Your task to perform on an android device: change notification settings in the gmail app Image 0: 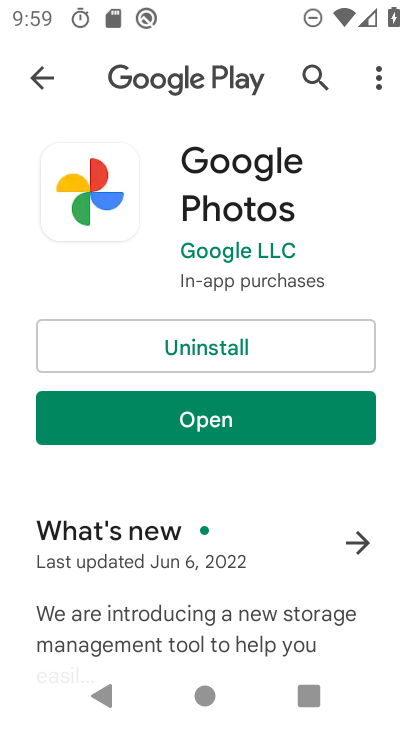
Step 0: press home button
Your task to perform on an android device: change notification settings in the gmail app Image 1: 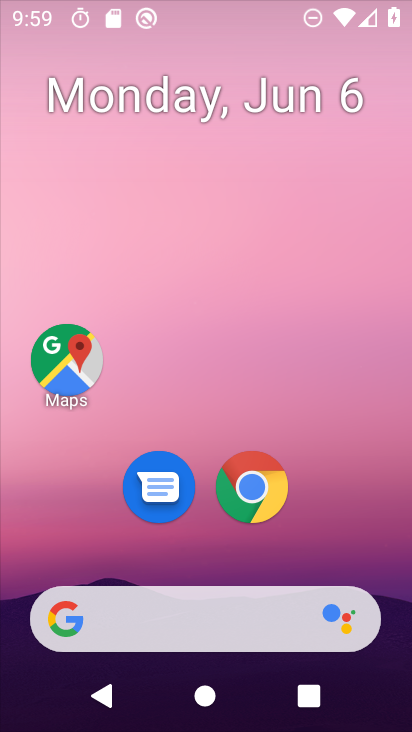
Step 1: drag from (397, 646) to (288, 59)
Your task to perform on an android device: change notification settings in the gmail app Image 2: 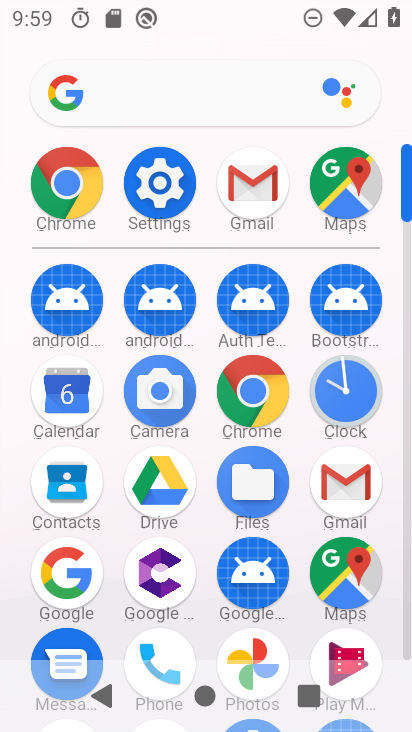
Step 2: click (346, 490)
Your task to perform on an android device: change notification settings in the gmail app Image 3: 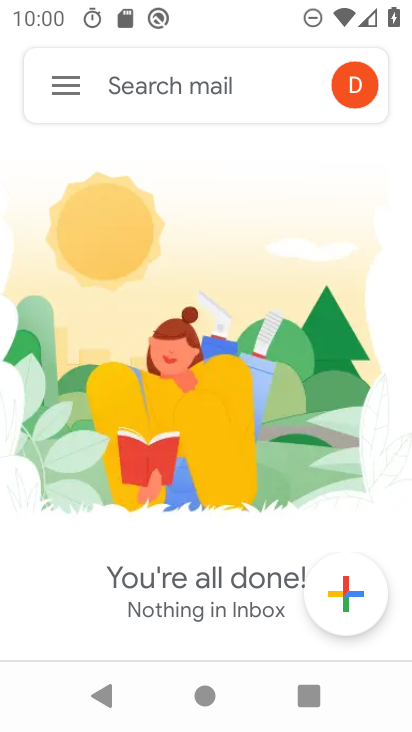
Step 3: click (37, 63)
Your task to perform on an android device: change notification settings in the gmail app Image 4: 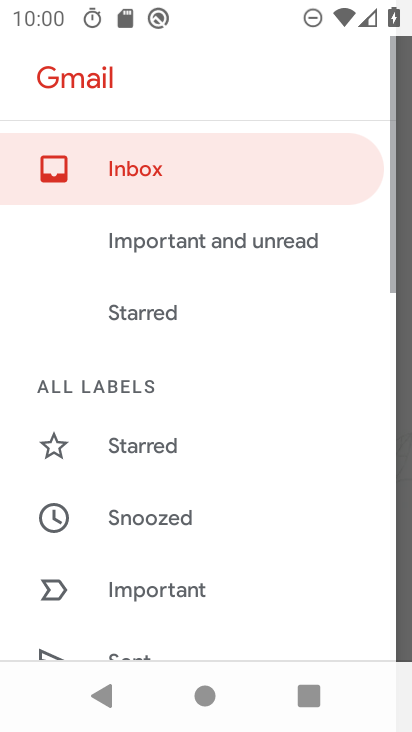
Step 4: drag from (176, 588) to (157, 81)
Your task to perform on an android device: change notification settings in the gmail app Image 5: 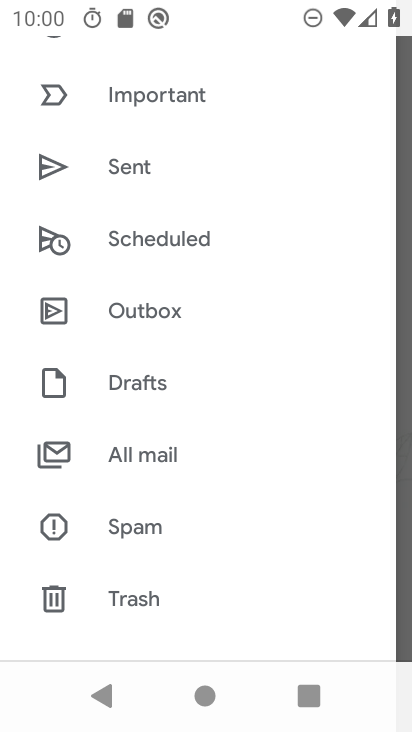
Step 5: drag from (104, 623) to (190, 96)
Your task to perform on an android device: change notification settings in the gmail app Image 6: 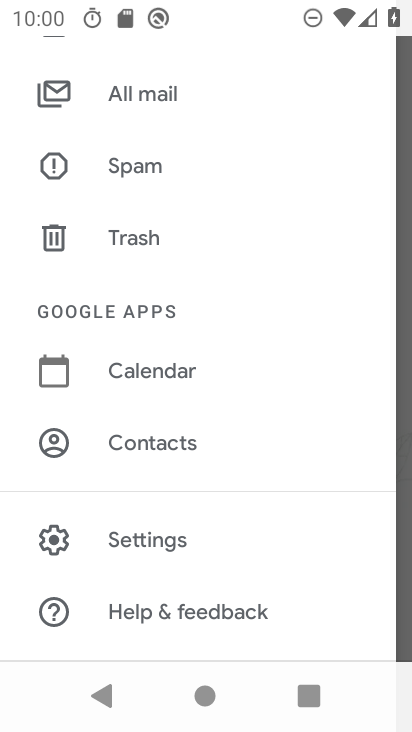
Step 6: click (190, 544)
Your task to perform on an android device: change notification settings in the gmail app Image 7: 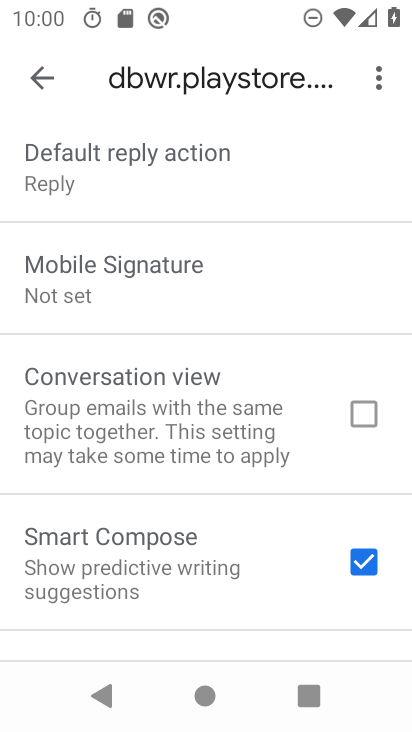
Step 7: drag from (190, 187) to (219, 573)
Your task to perform on an android device: change notification settings in the gmail app Image 8: 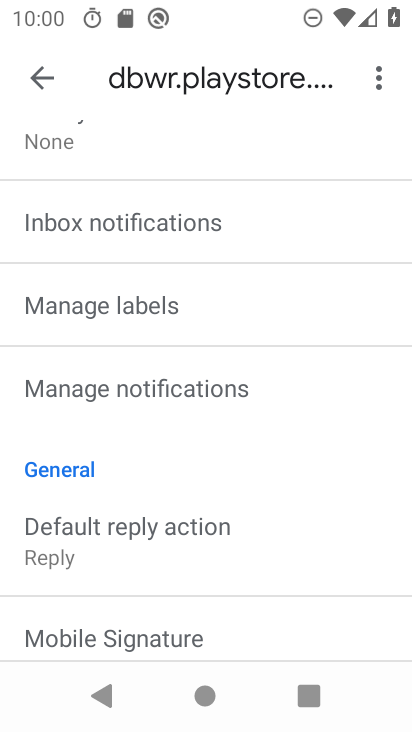
Step 8: drag from (195, 220) to (186, 589)
Your task to perform on an android device: change notification settings in the gmail app Image 9: 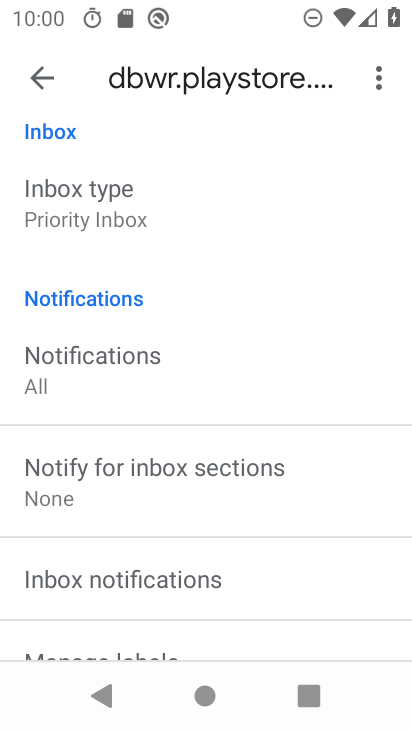
Step 9: click (122, 397)
Your task to perform on an android device: change notification settings in the gmail app Image 10: 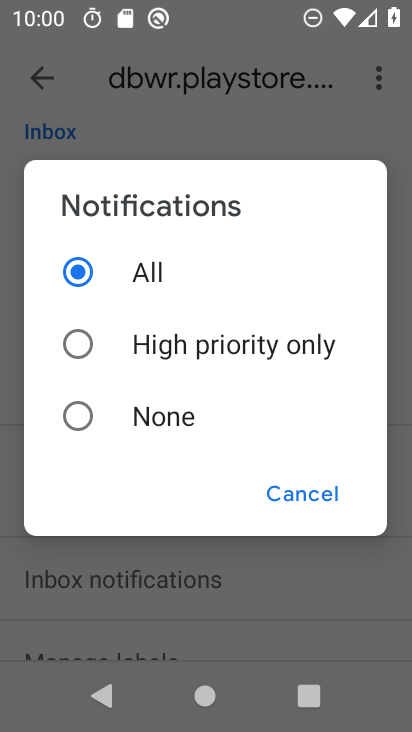
Step 10: click (68, 414)
Your task to perform on an android device: change notification settings in the gmail app Image 11: 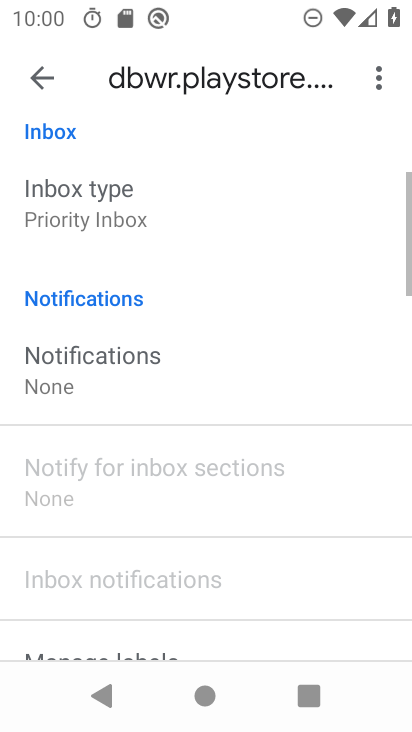
Step 11: task complete